Your task to perform on an android device: change text size in settings app Image 0: 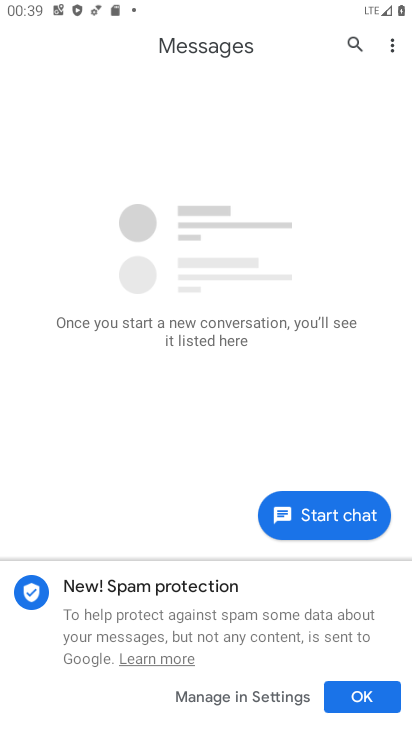
Step 0: press home button
Your task to perform on an android device: change text size in settings app Image 1: 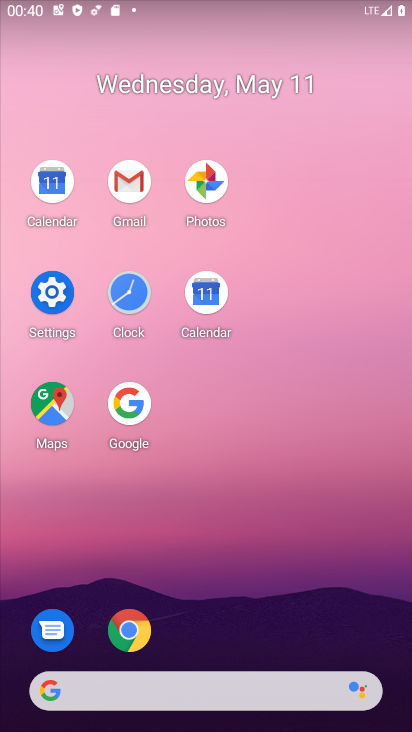
Step 1: click (66, 296)
Your task to perform on an android device: change text size in settings app Image 2: 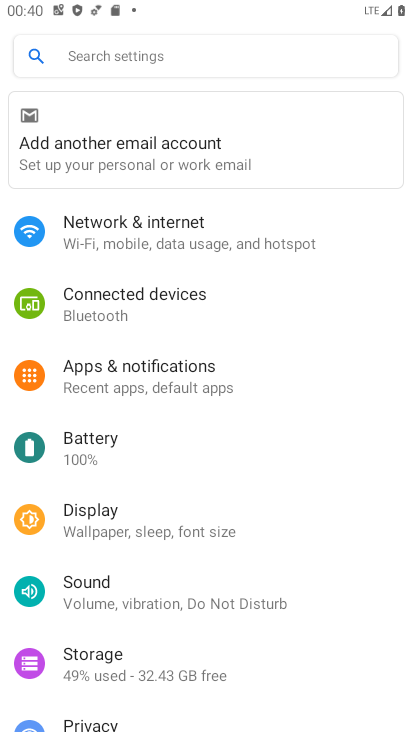
Step 2: click (248, 523)
Your task to perform on an android device: change text size in settings app Image 3: 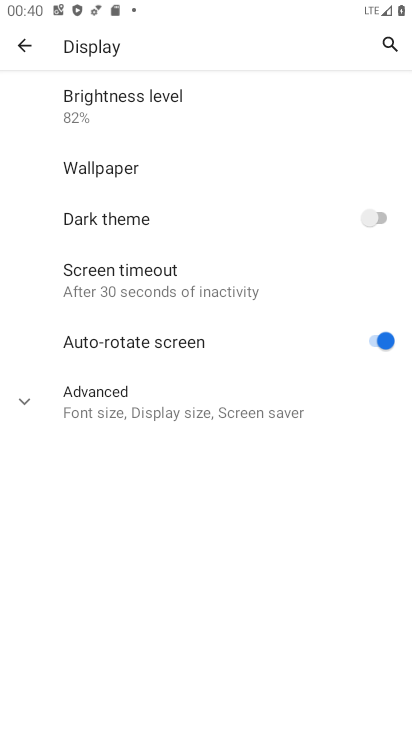
Step 3: click (166, 417)
Your task to perform on an android device: change text size in settings app Image 4: 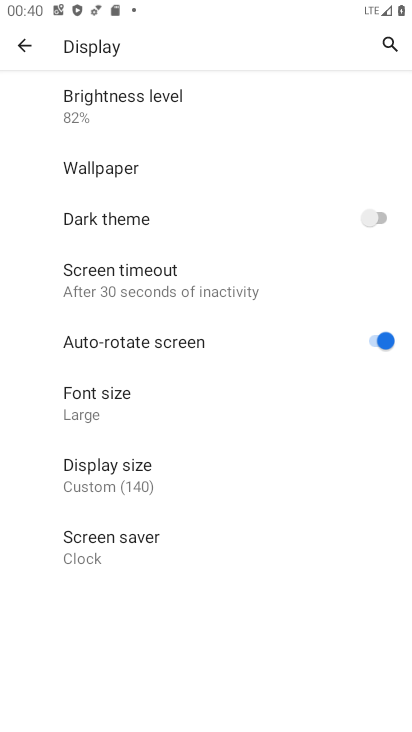
Step 4: click (114, 388)
Your task to perform on an android device: change text size in settings app Image 5: 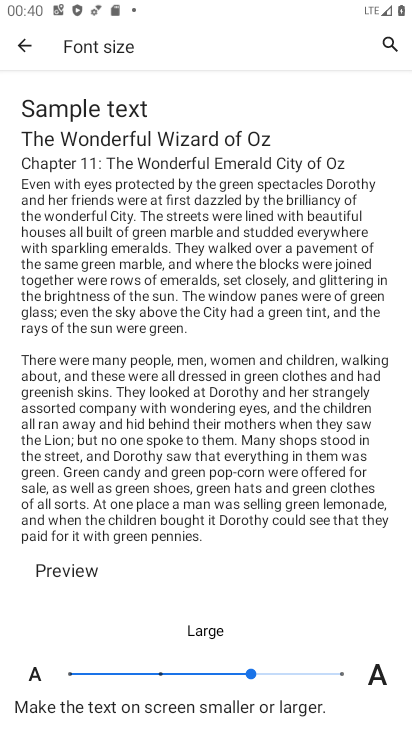
Step 5: click (153, 672)
Your task to perform on an android device: change text size in settings app Image 6: 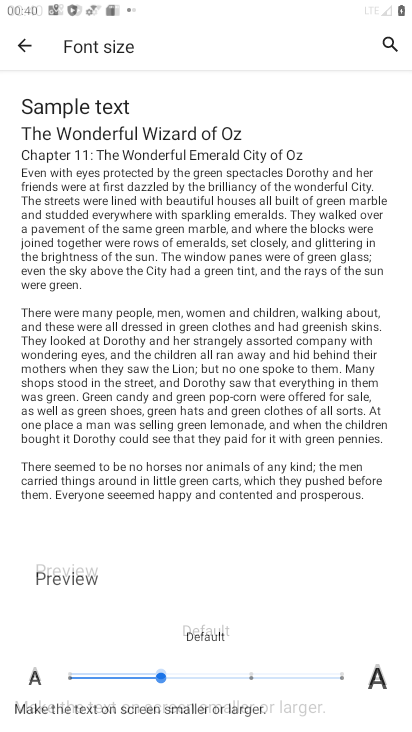
Step 6: task complete